Your task to perform on an android device: Go to Maps Image 0: 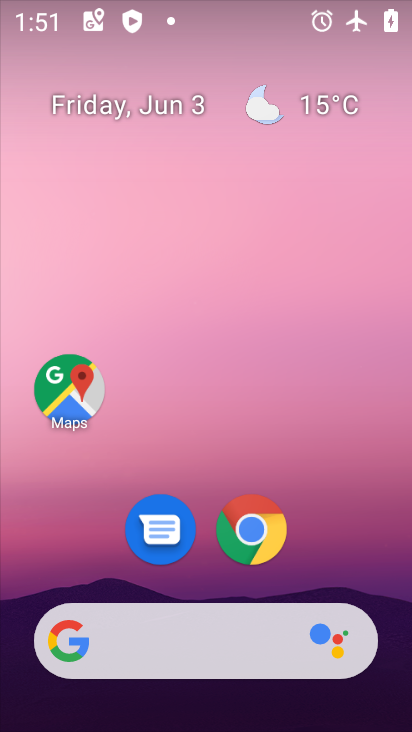
Step 0: drag from (367, 534) to (367, 184)
Your task to perform on an android device: Go to Maps Image 1: 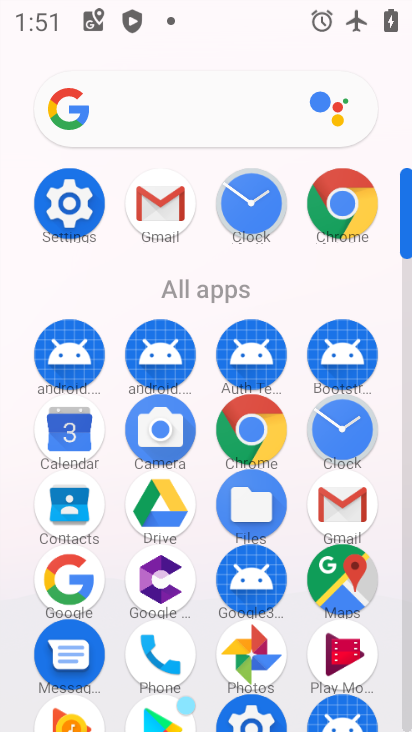
Step 1: click (345, 585)
Your task to perform on an android device: Go to Maps Image 2: 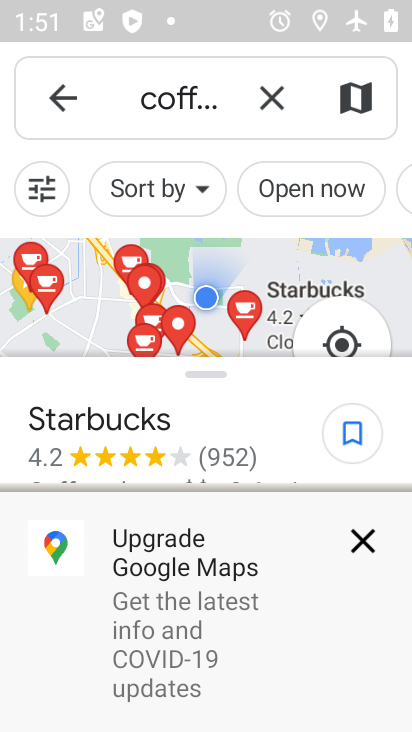
Step 2: task complete